Your task to perform on an android device: Turn on the flashlight Image 0: 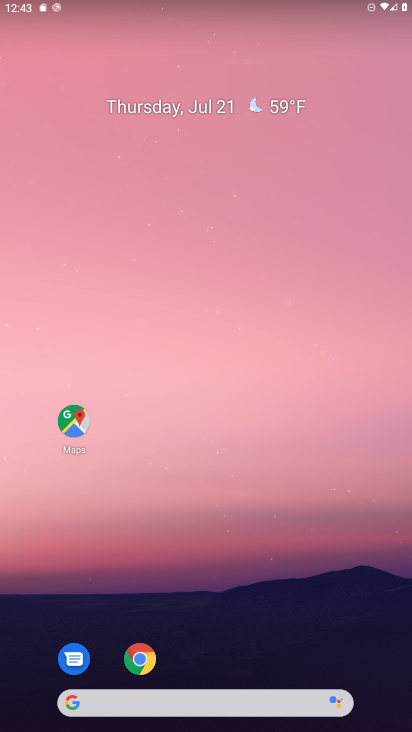
Step 0: press home button
Your task to perform on an android device: Turn on the flashlight Image 1: 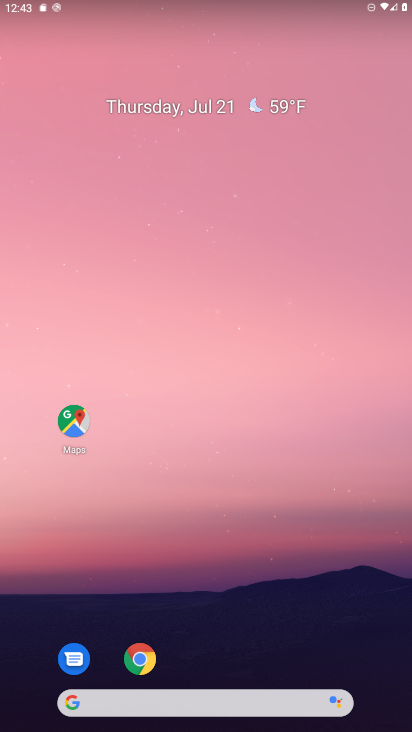
Step 1: drag from (77, 543) to (249, 54)
Your task to perform on an android device: Turn on the flashlight Image 2: 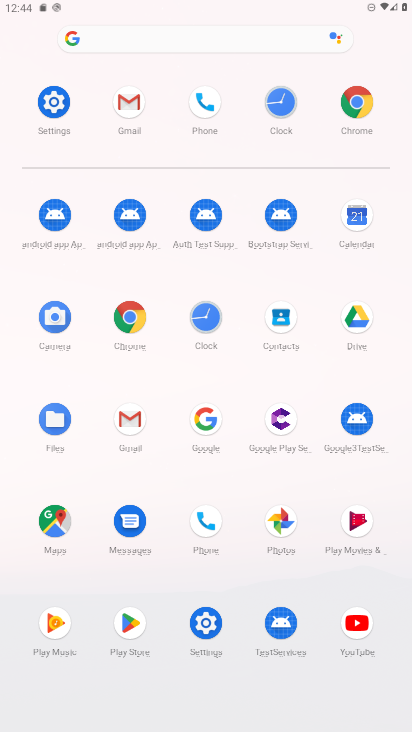
Step 2: click (66, 111)
Your task to perform on an android device: Turn on the flashlight Image 3: 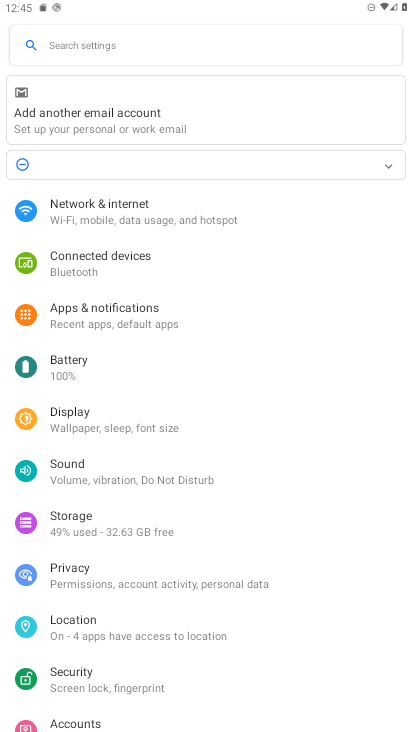
Step 3: task complete